Your task to perform on an android device: turn on data saver in the chrome app Image 0: 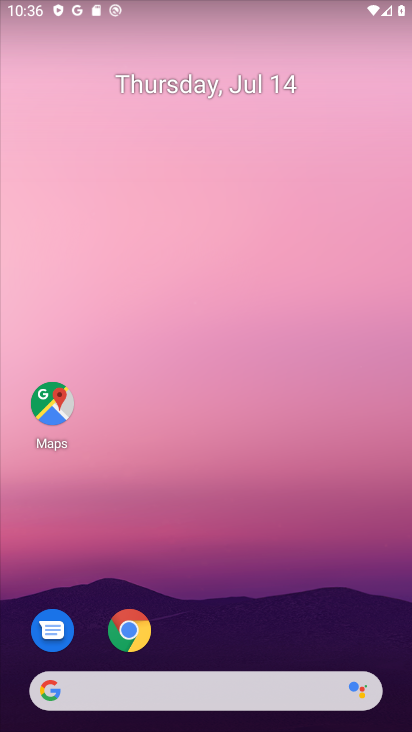
Step 0: drag from (231, 637) to (409, 481)
Your task to perform on an android device: turn on data saver in the chrome app Image 1: 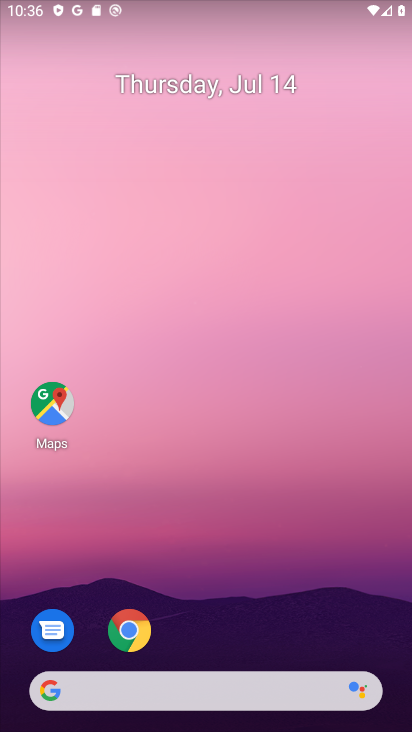
Step 1: drag from (254, 601) to (358, 75)
Your task to perform on an android device: turn on data saver in the chrome app Image 2: 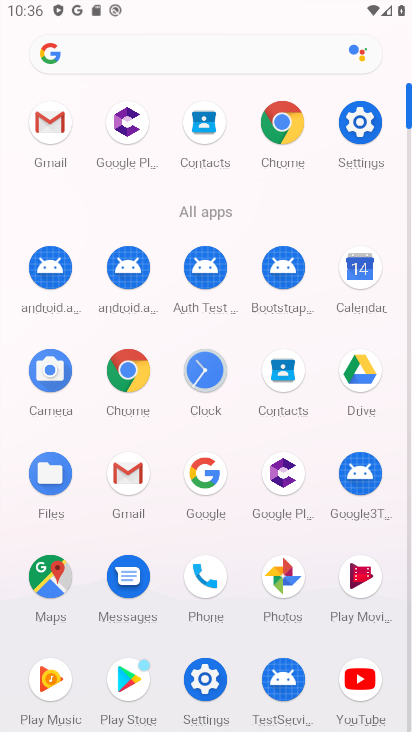
Step 2: click (136, 386)
Your task to perform on an android device: turn on data saver in the chrome app Image 3: 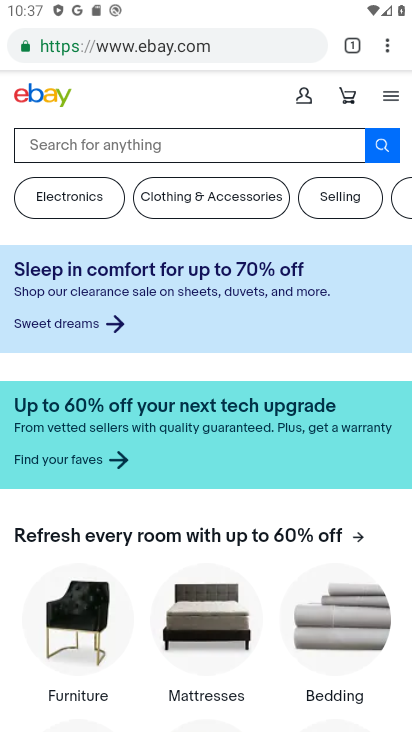
Step 3: drag from (392, 48) to (264, 533)
Your task to perform on an android device: turn on data saver in the chrome app Image 4: 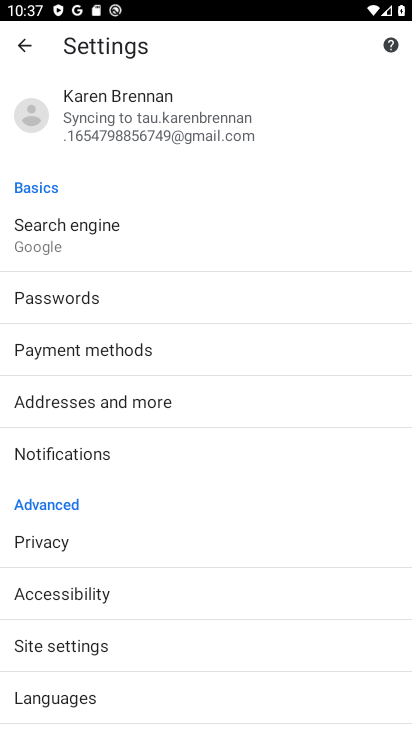
Step 4: drag from (196, 574) to (281, 253)
Your task to perform on an android device: turn on data saver in the chrome app Image 5: 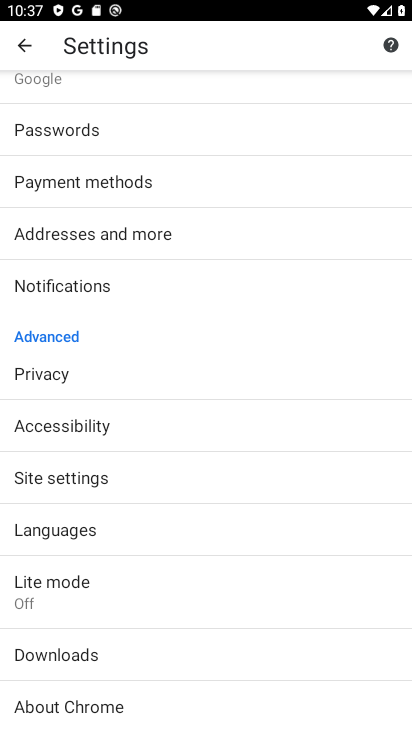
Step 5: click (160, 600)
Your task to perform on an android device: turn on data saver in the chrome app Image 6: 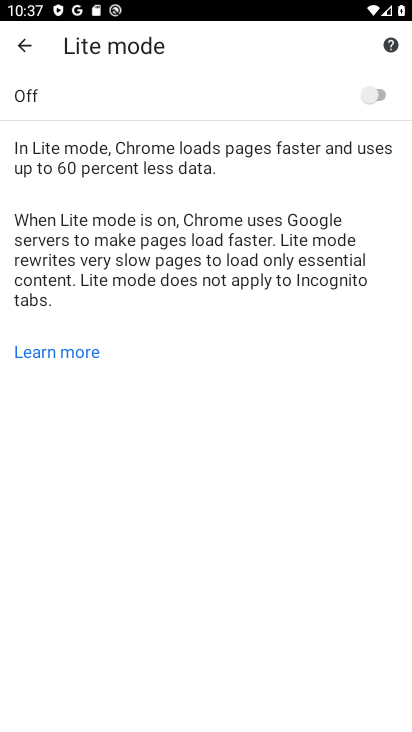
Step 6: click (390, 95)
Your task to perform on an android device: turn on data saver in the chrome app Image 7: 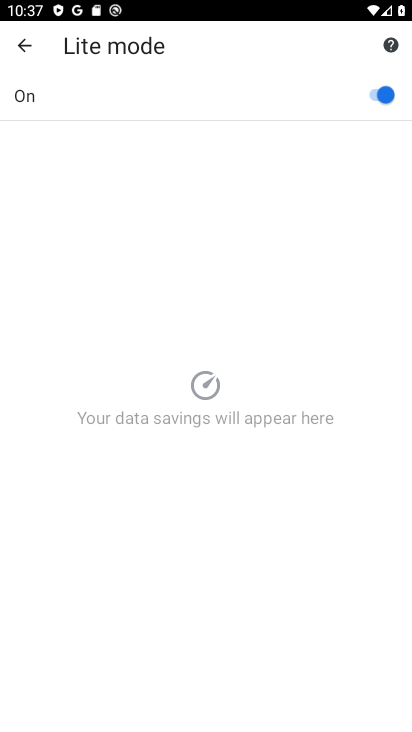
Step 7: task complete